Your task to perform on an android device: Search for pizza restaurants on Maps Image 0: 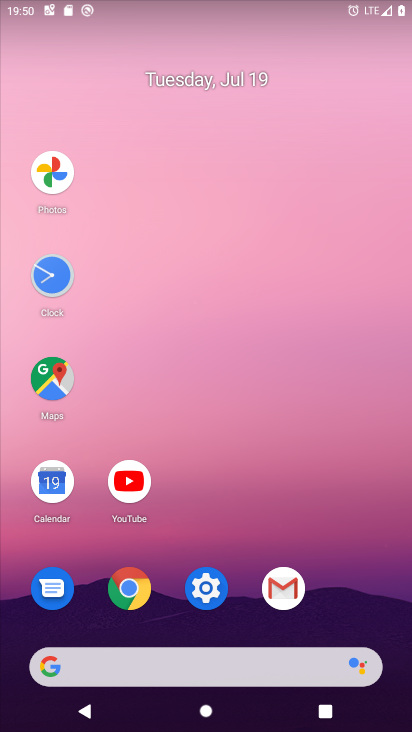
Step 0: click (44, 380)
Your task to perform on an android device: Search for pizza restaurants on Maps Image 1: 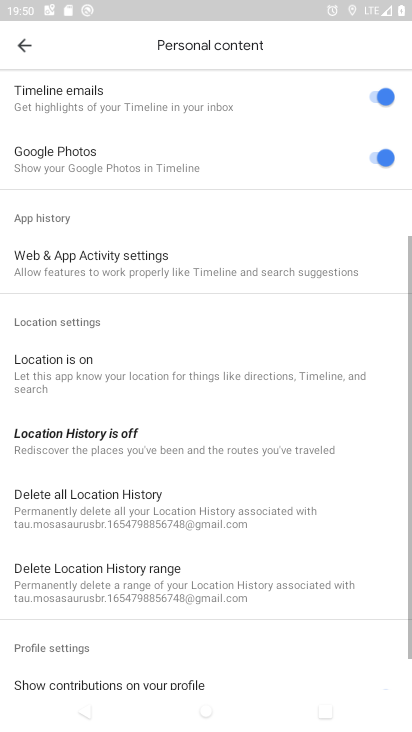
Step 1: click (25, 44)
Your task to perform on an android device: Search for pizza restaurants on Maps Image 2: 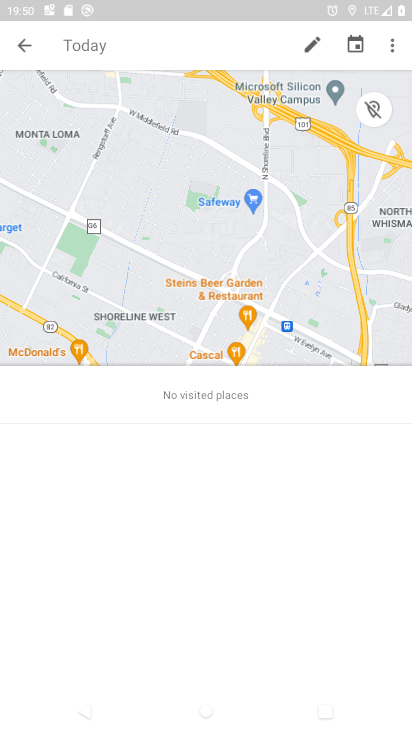
Step 2: click (18, 44)
Your task to perform on an android device: Search for pizza restaurants on Maps Image 3: 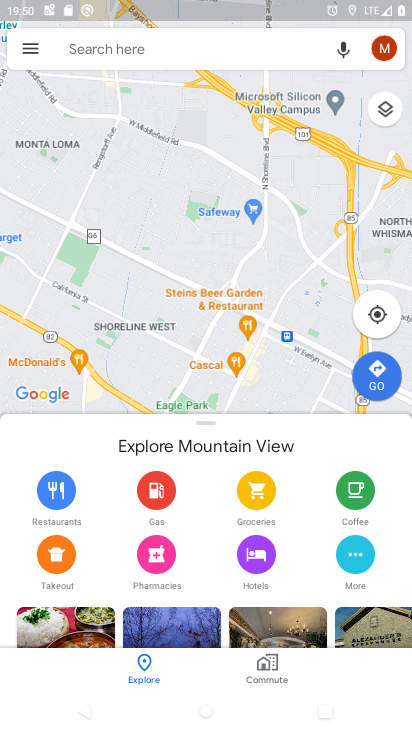
Step 3: click (106, 49)
Your task to perform on an android device: Search for pizza restaurants on Maps Image 4: 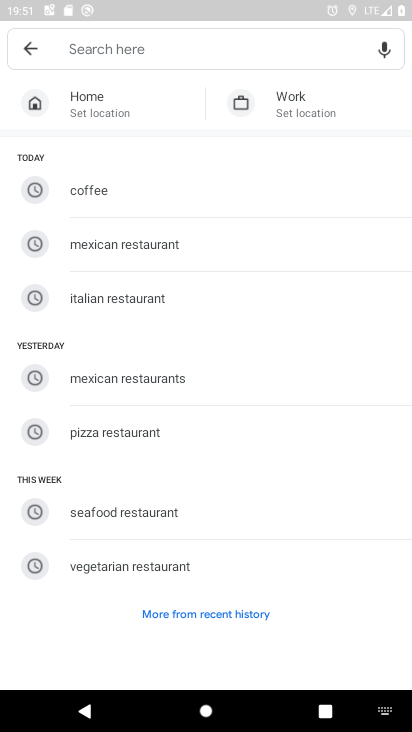
Step 4: click (115, 435)
Your task to perform on an android device: Search for pizza restaurants on Maps Image 5: 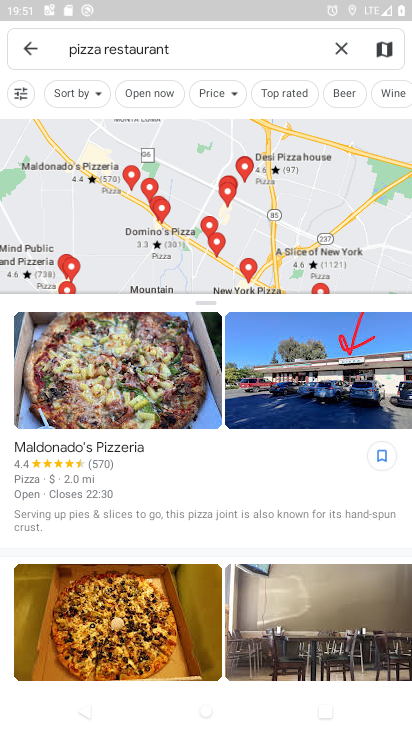
Step 5: task complete